Your task to perform on an android device: visit the assistant section in the google photos Image 0: 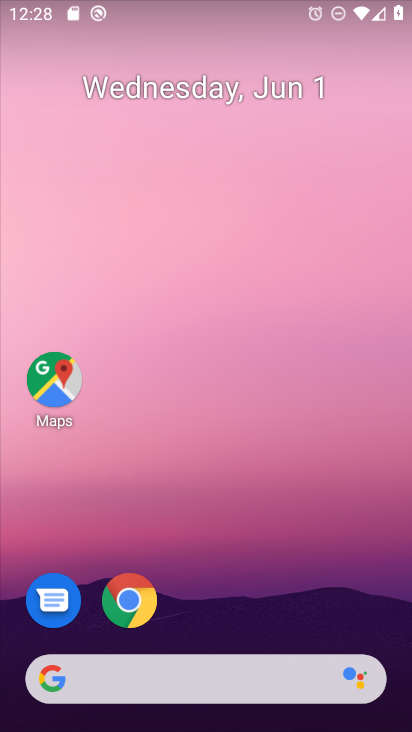
Step 0: drag from (225, 635) to (234, 3)
Your task to perform on an android device: visit the assistant section in the google photos Image 1: 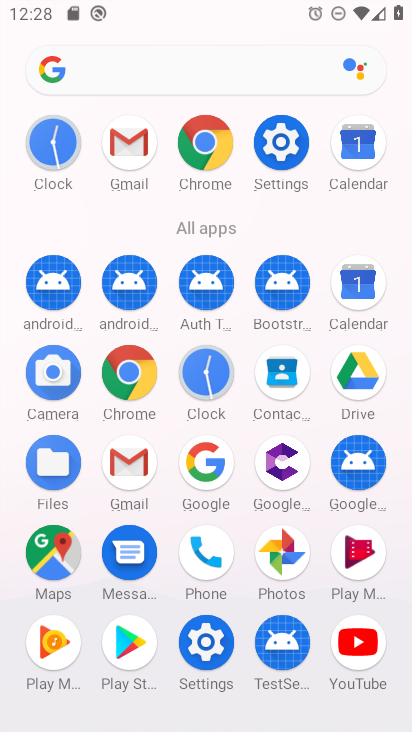
Step 1: click (275, 544)
Your task to perform on an android device: visit the assistant section in the google photos Image 2: 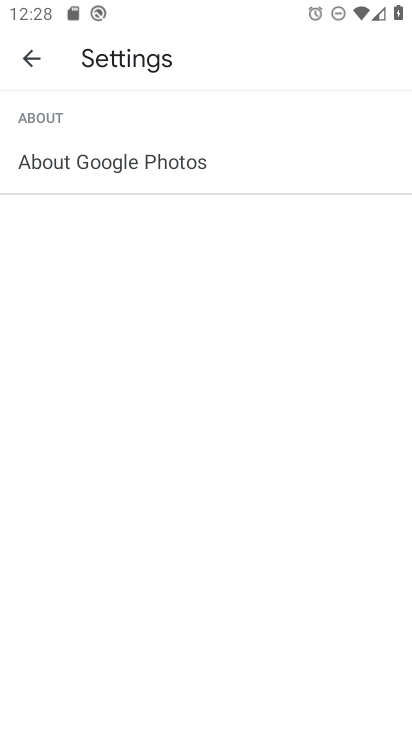
Step 2: click (46, 51)
Your task to perform on an android device: visit the assistant section in the google photos Image 3: 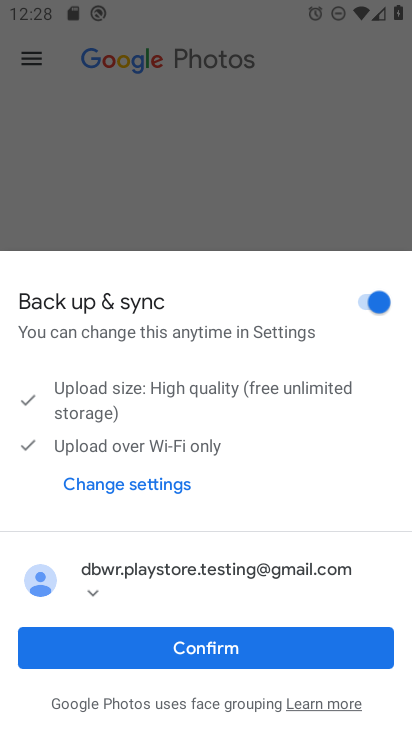
Step 3: click (211, 657)
Your task to perform on an android device: visit the assistant section in the google photos Image 4: 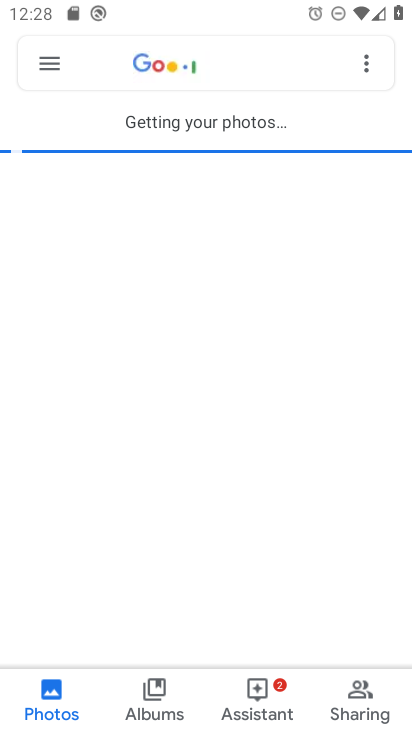
Step 4: click (263, 690)
Your task to perform on an android device: visit the assistant section in the google photos Image 5: 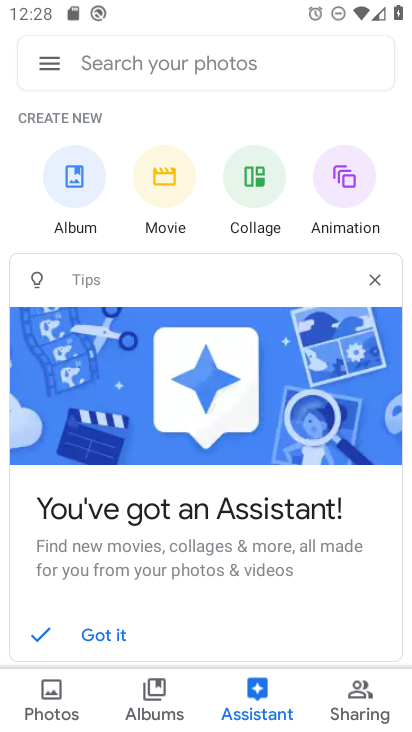
Step 5: task complete